Your task to perform on an android device: What's the weather going to be tomorrow? Image 0: 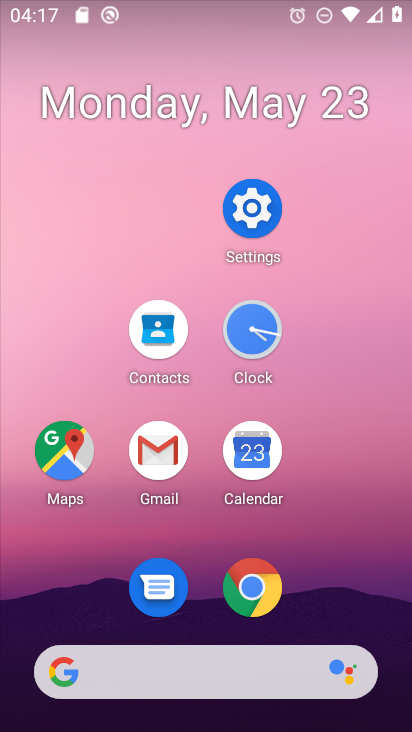
Step 0: click (220, 689)
Your task to perform on an android device: What's the weather going to be tomorrow? Image 1: 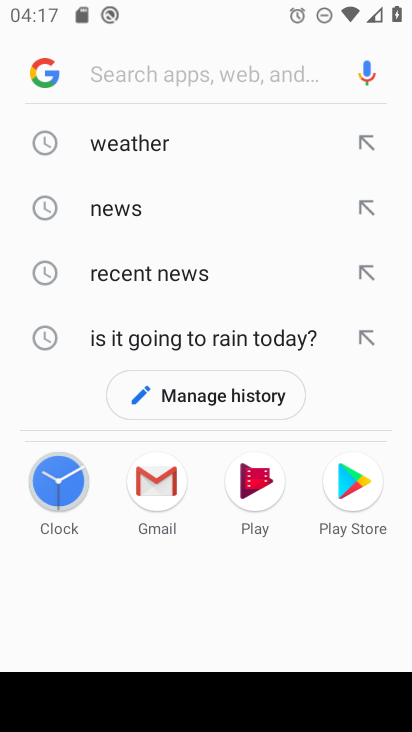
Step 1: click (192, 147)
Your task to perform on an android device: What's the weather going to be tomorrow? Image 2: 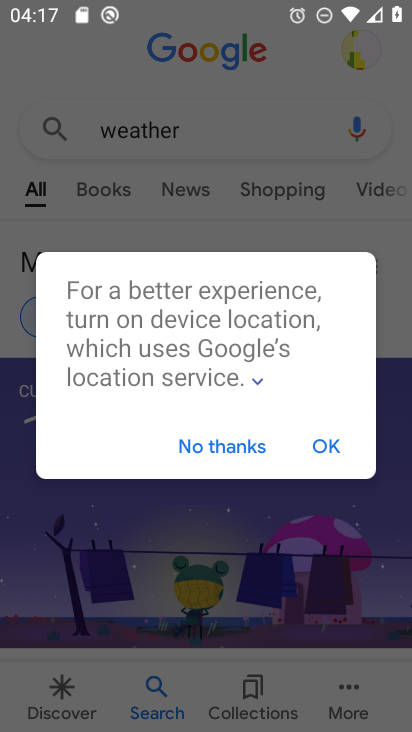
Step 2: click (192, 324)
Your task to perform on an android device: What's the weather going to be tomorrow? Image 3: 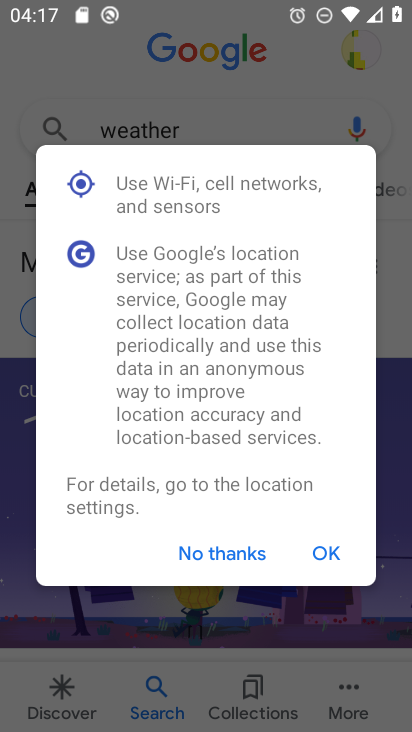
Step 3: click (328, 555)
Your task to perform on an android device: What's the weather going to be tomorrow? Image 4: 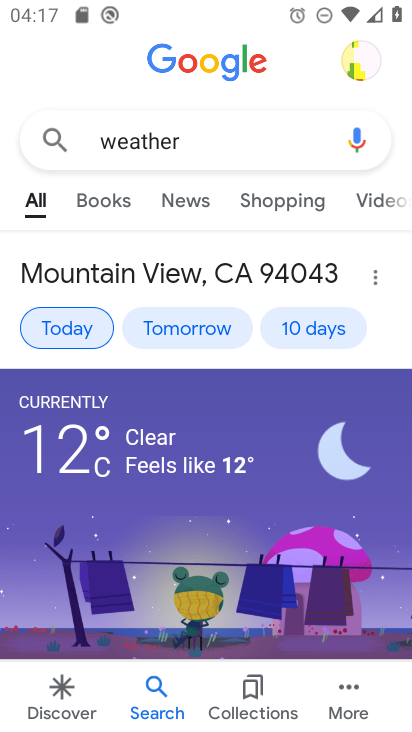
Step 4: click (191, 317)
Your task to perform on an android device: What's the weather going to be tomorrow? Image 5: 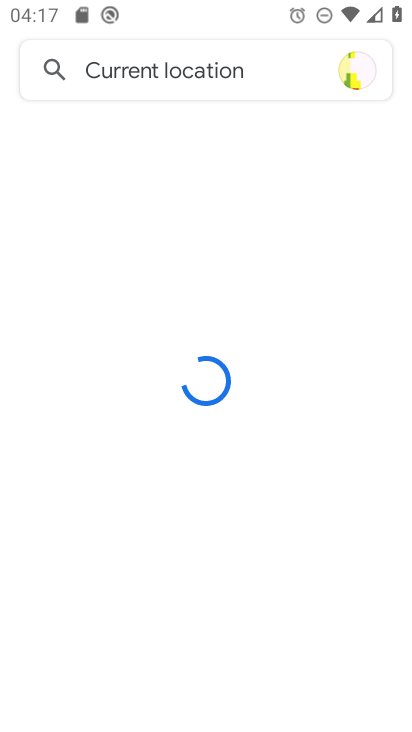
Step 5: task complete